Your task to perform on an android device: turn off location Image 0: 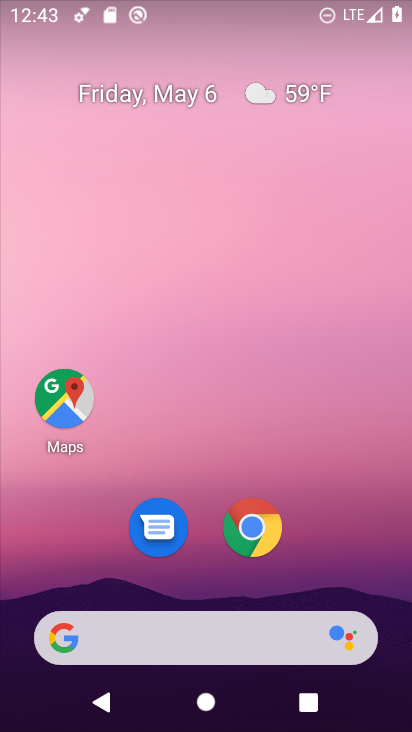
Step 0: drag from (311, 496) to (158, 55)
Your task to perform on an android device: turn off location Image 1: 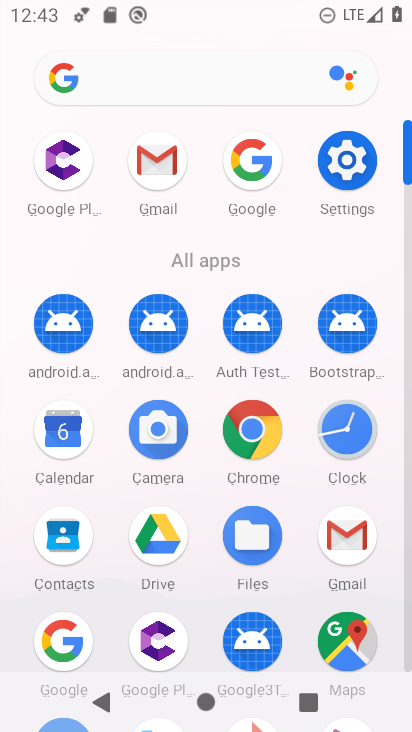
Step 1: click (344, 160)
Your task to perform on an android device: turn off location Image 2: 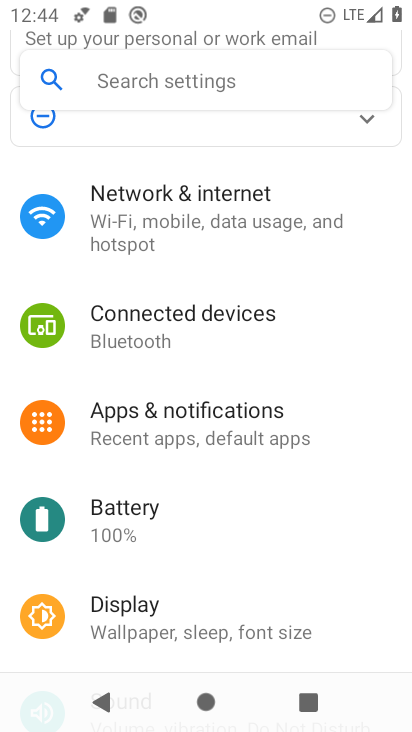
Step 2: drag from (193, 481) to (229, 339)
Your task to perform on an android device: turn off location Image 3: 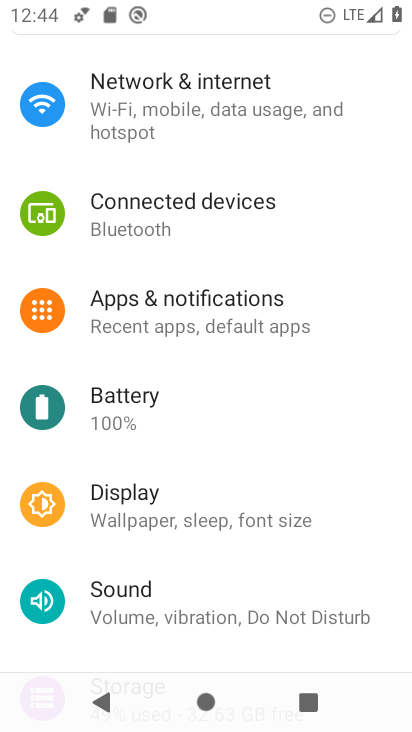
Step 3: drag from (198, 557) to (231, 426)
Your task to perform on an android device: turn off location Image 4: 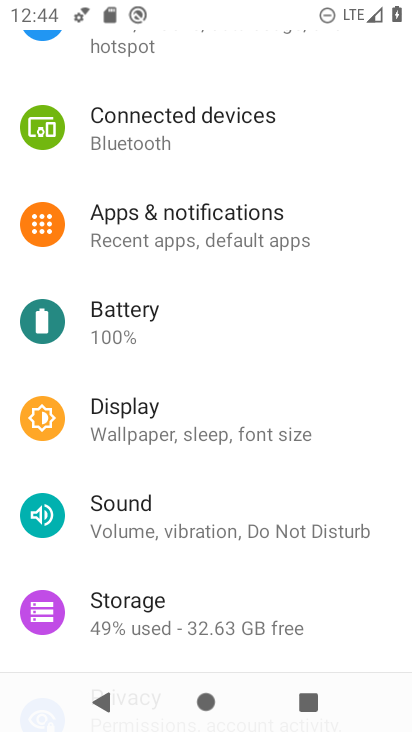
Step 4: drag from (198, 561) to (248, 400)
Your task to perform on an android device: turn off location Image 5: 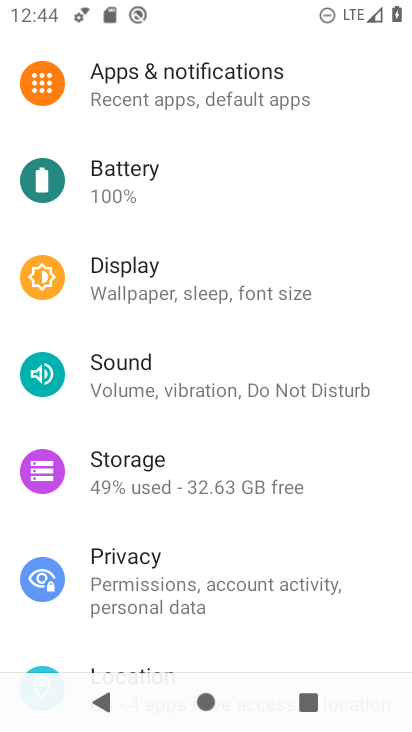
Step 5: drag from (188, 525) to (245, 381)
Your task to perform on an android device: turn off location Image 6: 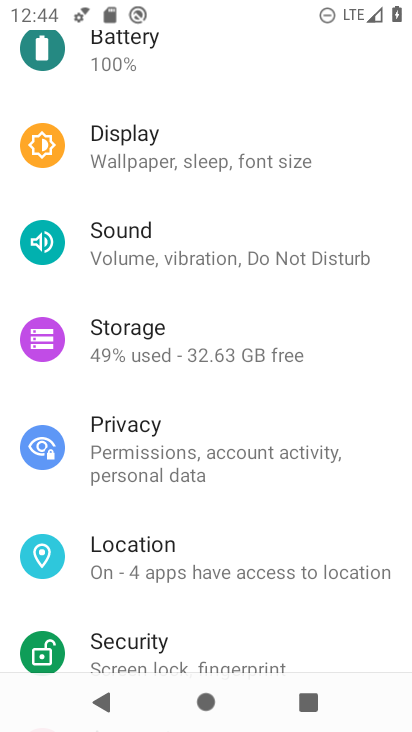
Step 6: drag from (176, 497) to (216, 385)
Your task to perform on an android device: turn off location Image 7: 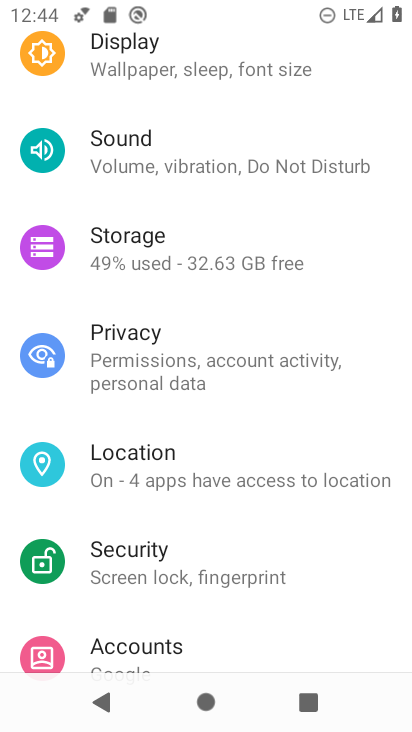
Step 7: click (162, 448)
Your task to perform on an android device: turn off location Image 8: 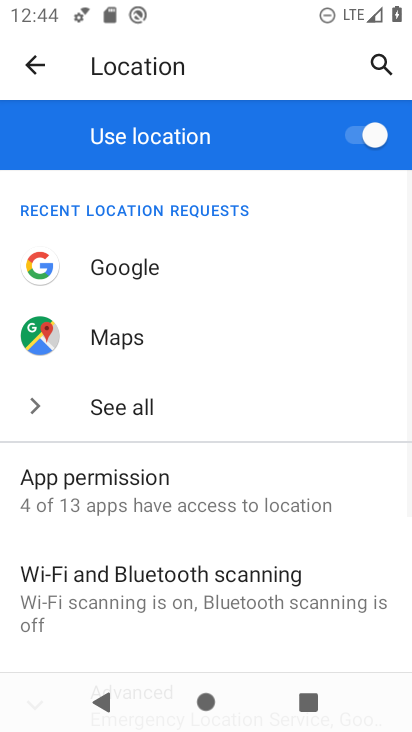
Step 8: drag from (226, 552) to (302, 394)
Your task to perform on an android device: turn off location Image 9: 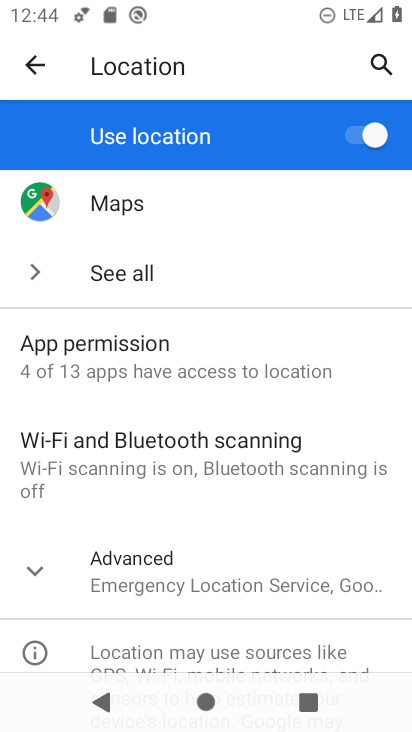
Step 9: click (371, 129)
Your task to perform on an android device: turn off location Image 10: 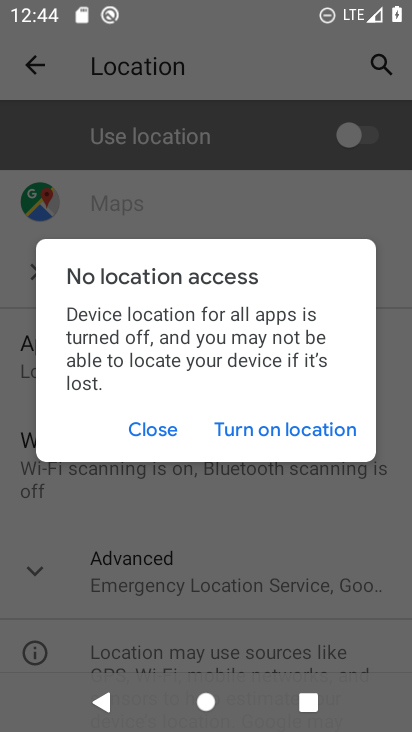
Step 10: click (144, 428)
Your task to perform on an android device: turn off location Image 11: 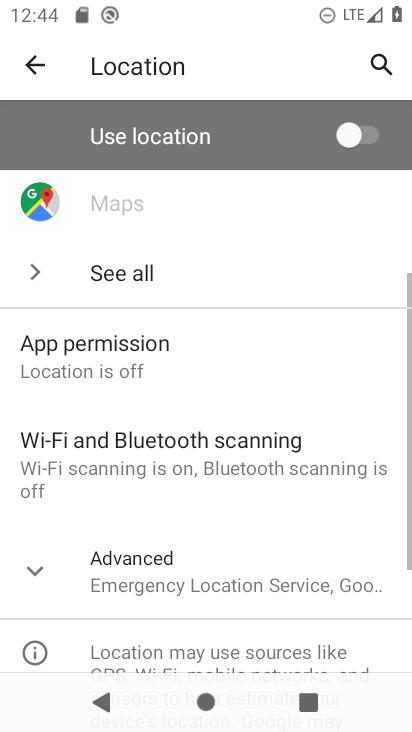
Step 11: task complete